Your task to perform on an android device: change the upload size in google photos Image 0: 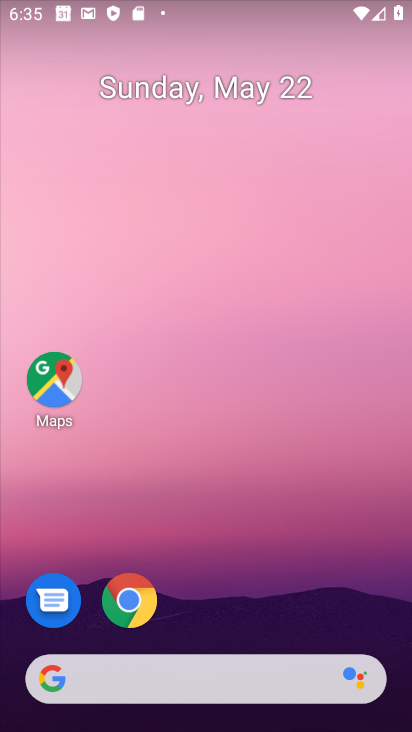
Step 0: drag from (328, 629) to (217, 53)
Your task to perform on an android device: change the upload size in google photos Image 1: 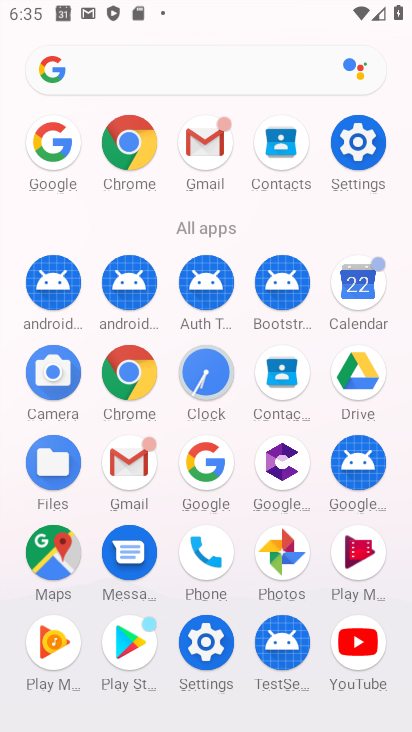
Step 1: click (288, 566)
Your task to perform on an android device: change the upload size in google photos Image 2: 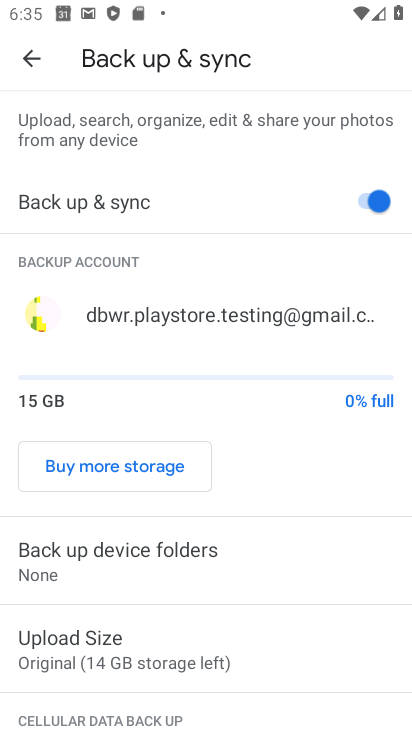
Step 2: click (175, 638)
Your task to perform on an android device: change the upload size in google photos Image 3: 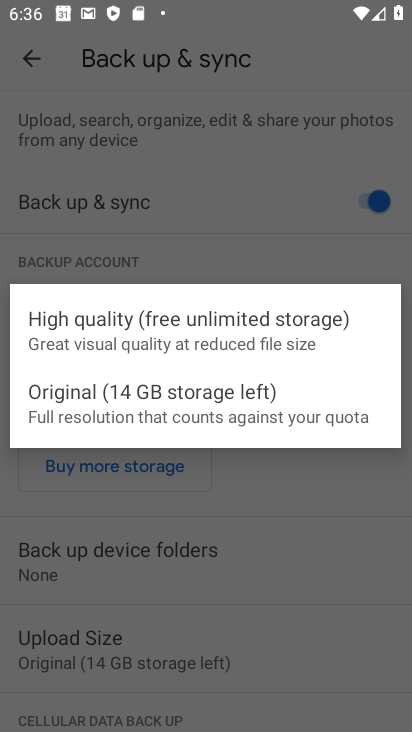
Step 3: click (115, 316)
Your task to perform on an android device: change the upload size in google photos Image 4: 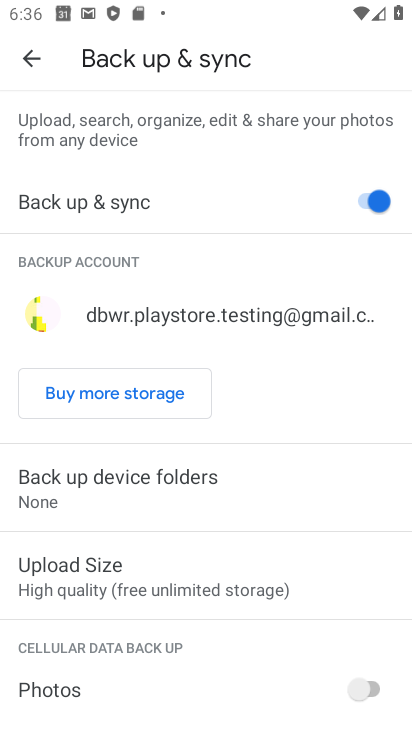
Step 4: task complete